Your task to perform on an android device: What is the news today? Image 0: 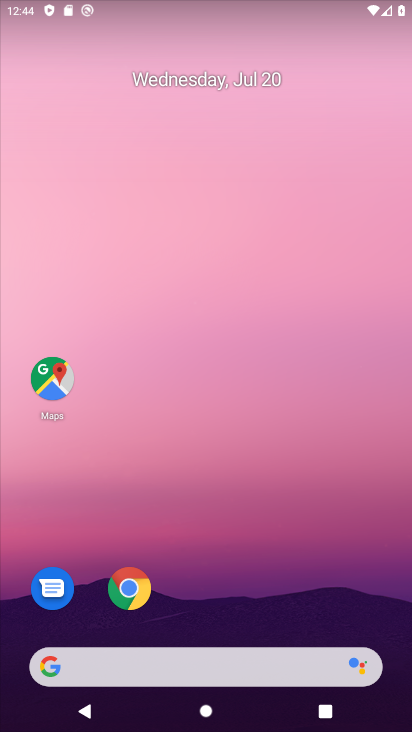
Step 0: press home button
Your task to perform on an android device: What is the news today? Image 1: 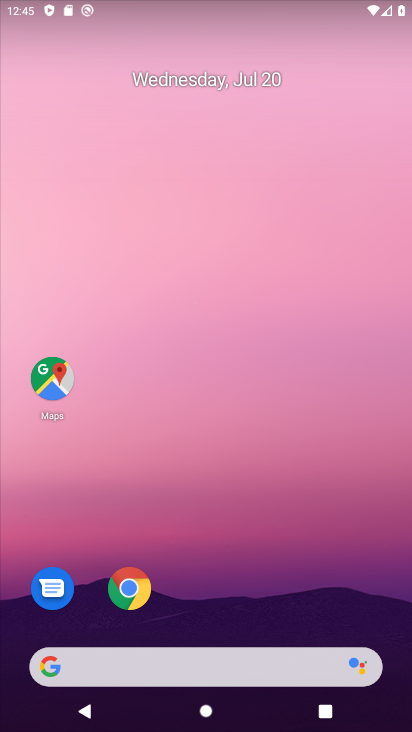
Step 1: click (260, 669)
Your task to perform on an android device: What is the news today? Image 2: 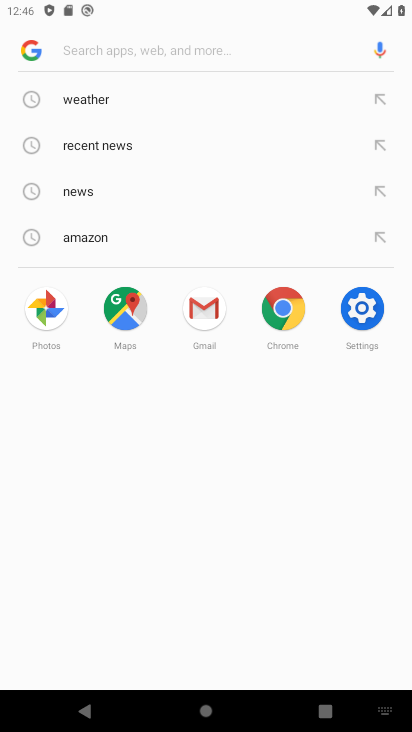
Step 2: click (130, 150)
Your task to perform on an android device: What is the news today? Image 3: 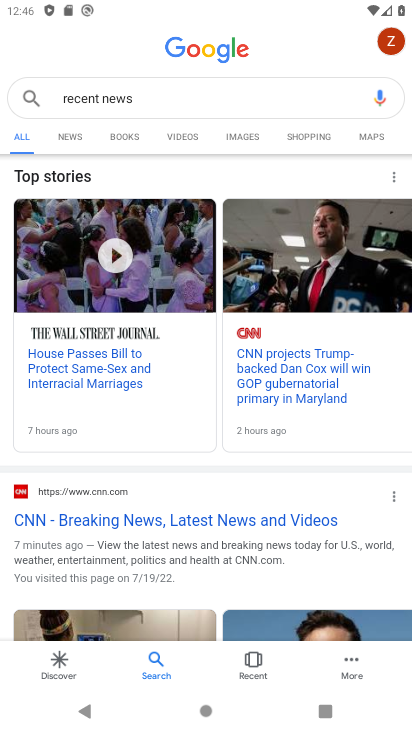
Step 3: task complete